Your task to perform on an android device: turn on sleep mode Image 0: 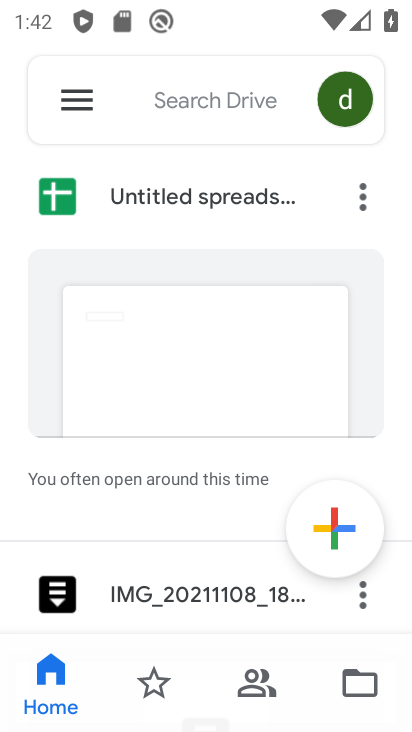
Step 0: press home button
Your task to perform on an android device: turn on sleep mode Image 1: 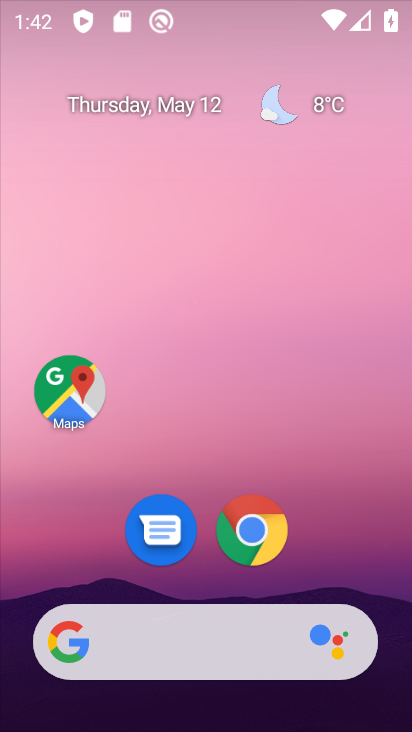
Step 1: drag from (20, 593) to (234, 173)
Your task to perform on an android device: turn on sleep mode Image 2: 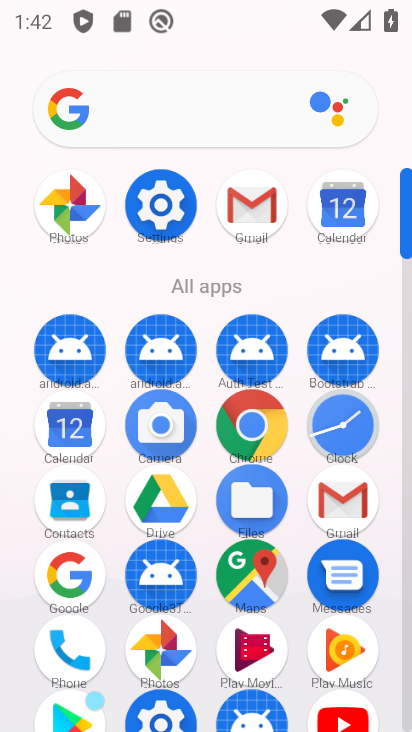
Step 2: click (169, 217)
Your task to perform on an android device: turn on sleep mode Image 3: 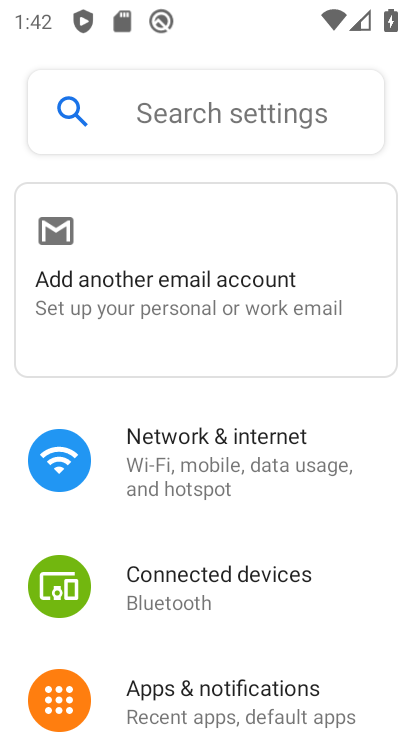
Step 3: drag from (190, 689) to (344, 135)
Your task to perform on an android device: turn on sleep mode Image 4: 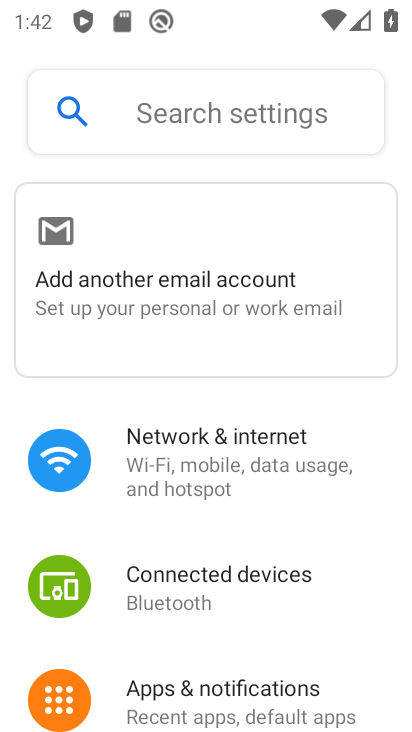
Step 4: drag from (153, 639) to (375, 171)
Your task to perform on an android device: turn on sleep mode Image 5: 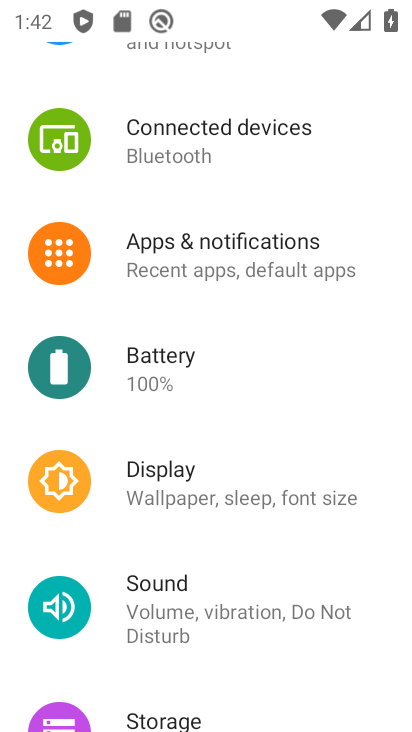
Step 5: click (222, 507)
Your task to perform on an android device: turn on sleep mode Image 6: 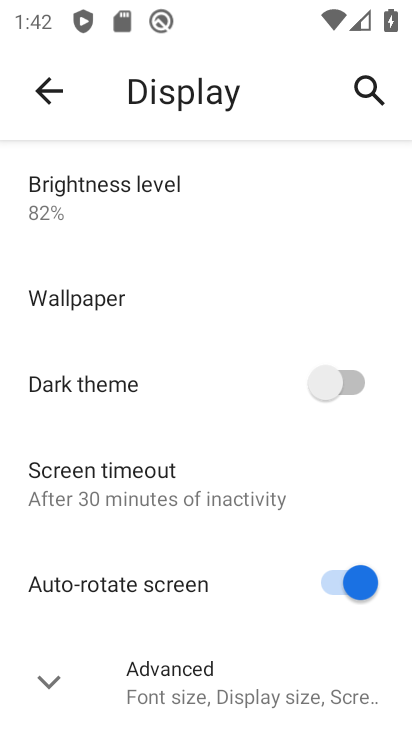
Step 6: task complete